Your task to perform on an android device: Open the web browser Image 0: 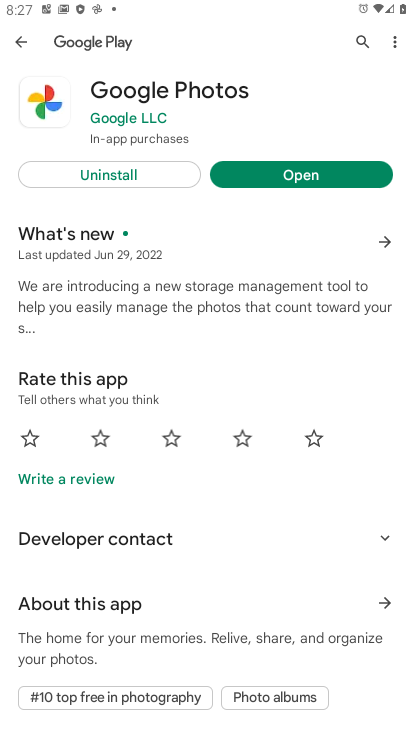
Step 0: press home button
Your task to perform on an android device: Open the web browser Image 1: 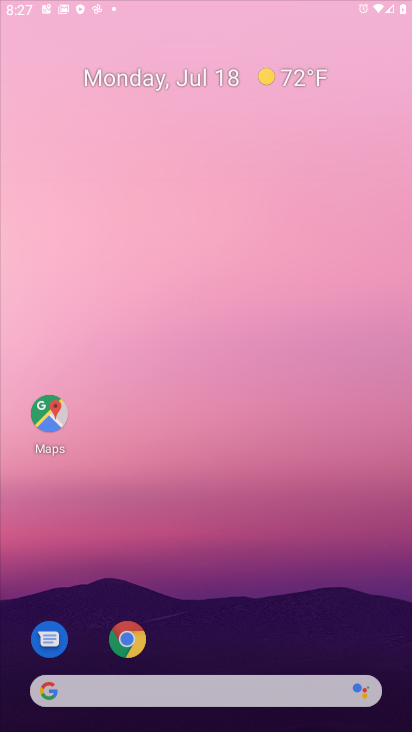
Step 1: drag from (386, 670) to (263, 31)
Your task to perform on an android device: Open the web browser Image 2: 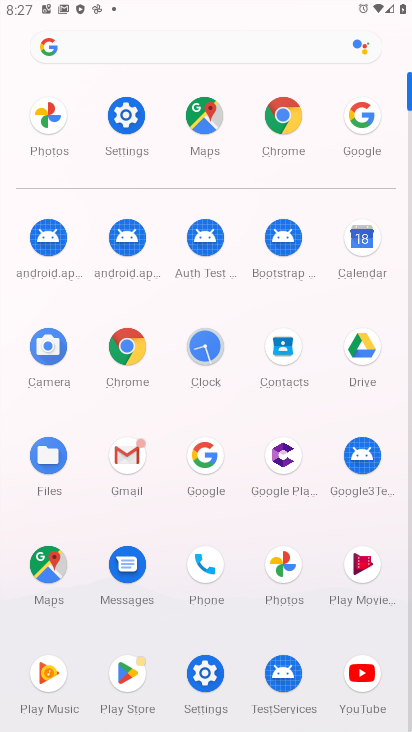
Step 2: click (203, 480)
Your task to perform on an android device: Open the web browser Image 3: 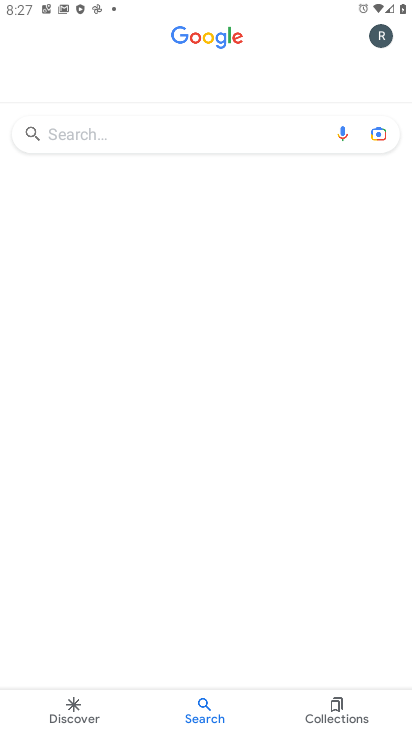
Step 3: click (178, 129)
Your task to perform on an android device: Open the web browser Image 4: 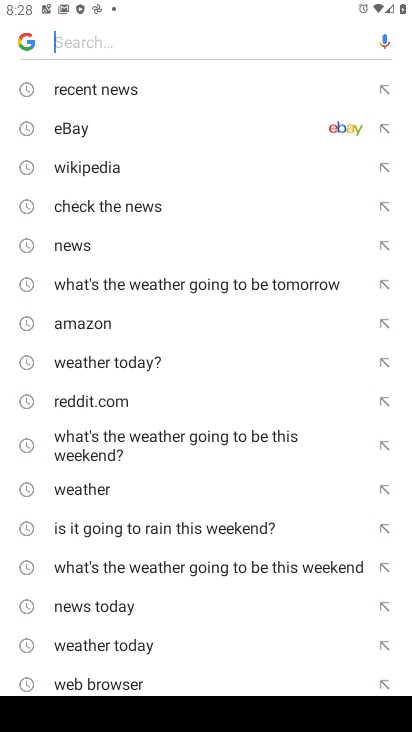
Step 4: click (100, 681)
Your task to perform on an android device: Open the web browser Image 5: 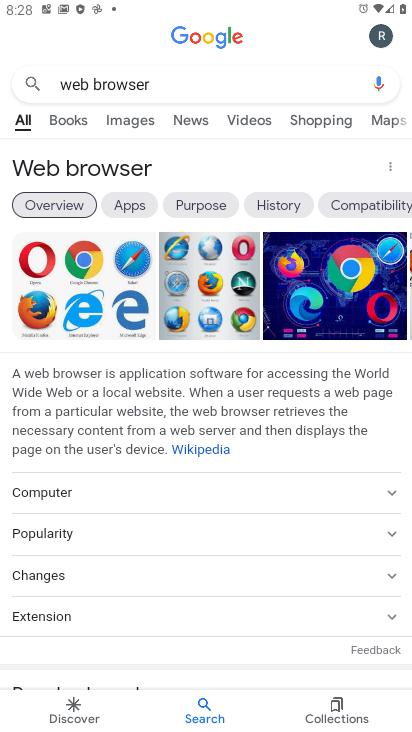
Step 5: task complete